Your task to perform on an android device: Go to Reddit.com Image 0: 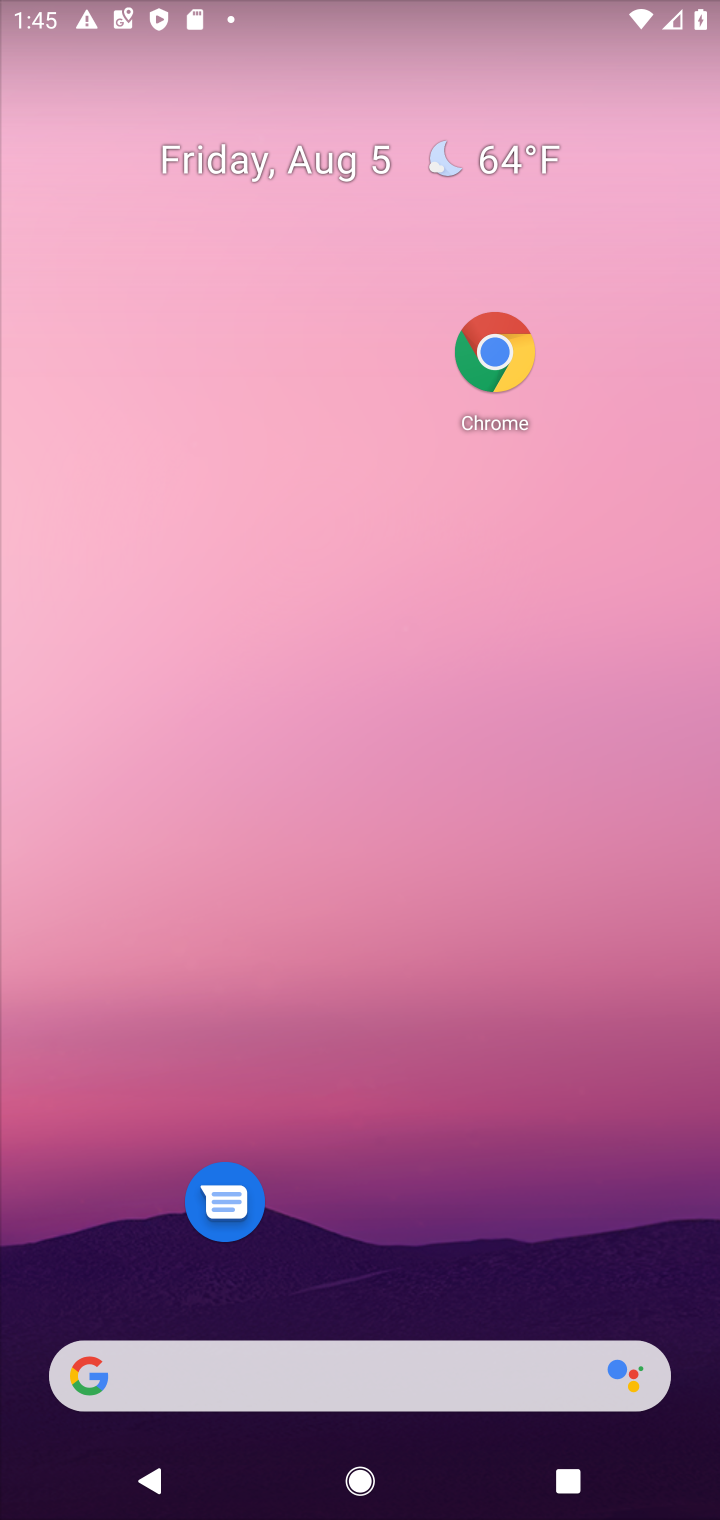
Step 0: drag from (511, 816) to (486, 69)
Your task to perform on an android device: Go to Reddit.com Image 1: 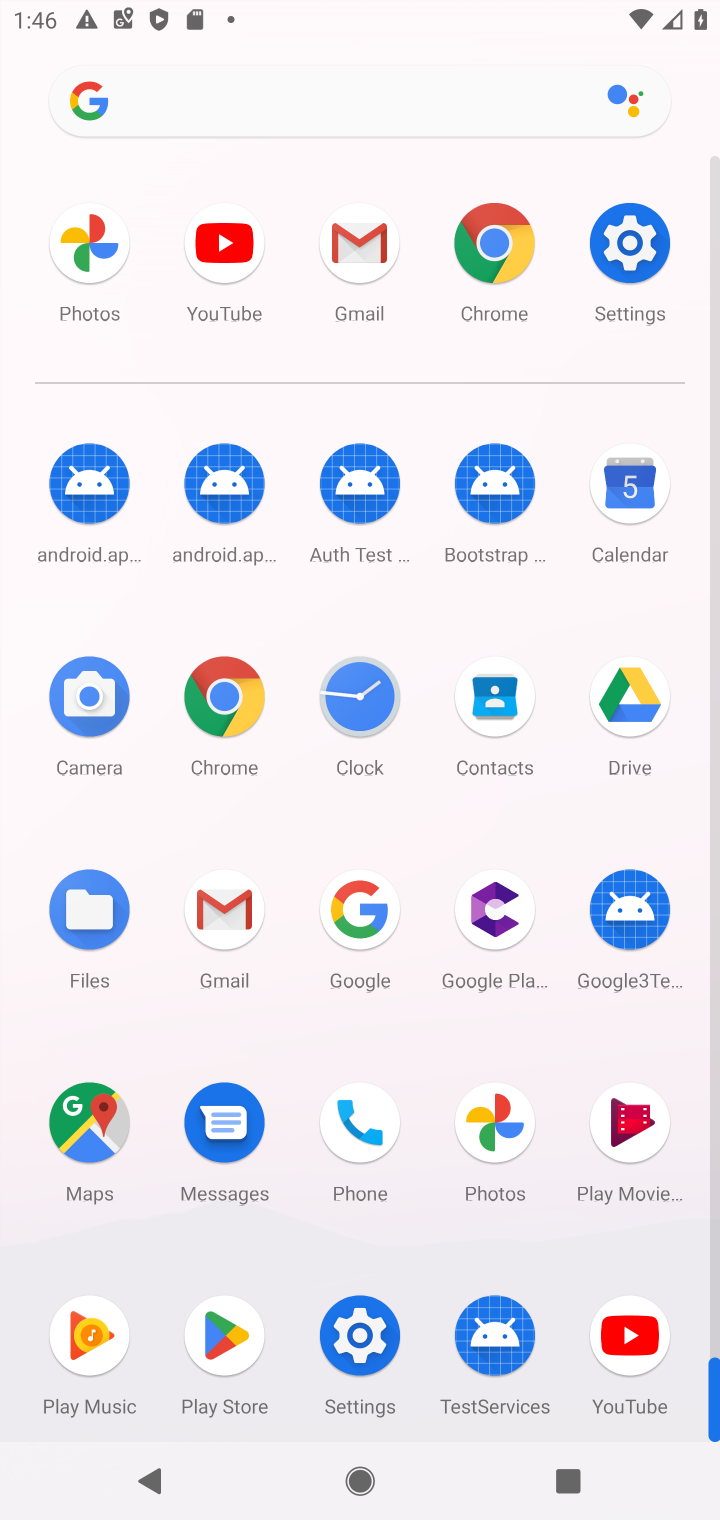
Step 1: click (235, 700)
Your task to perform on an android device: Go to Reddit.com Image 2: 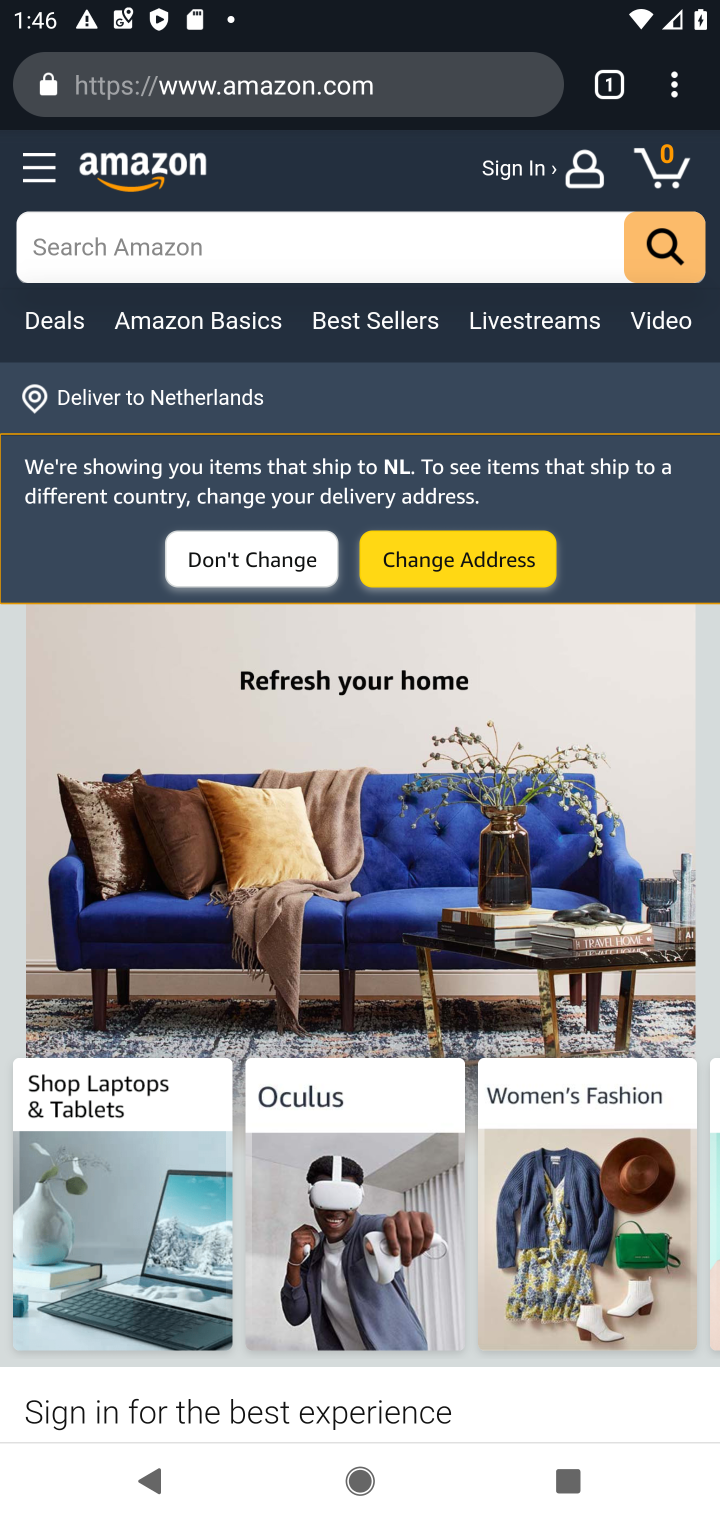
Step 2: click (359, 80)
Your task to perform on an android device: Go to Reddit.com Image 3: 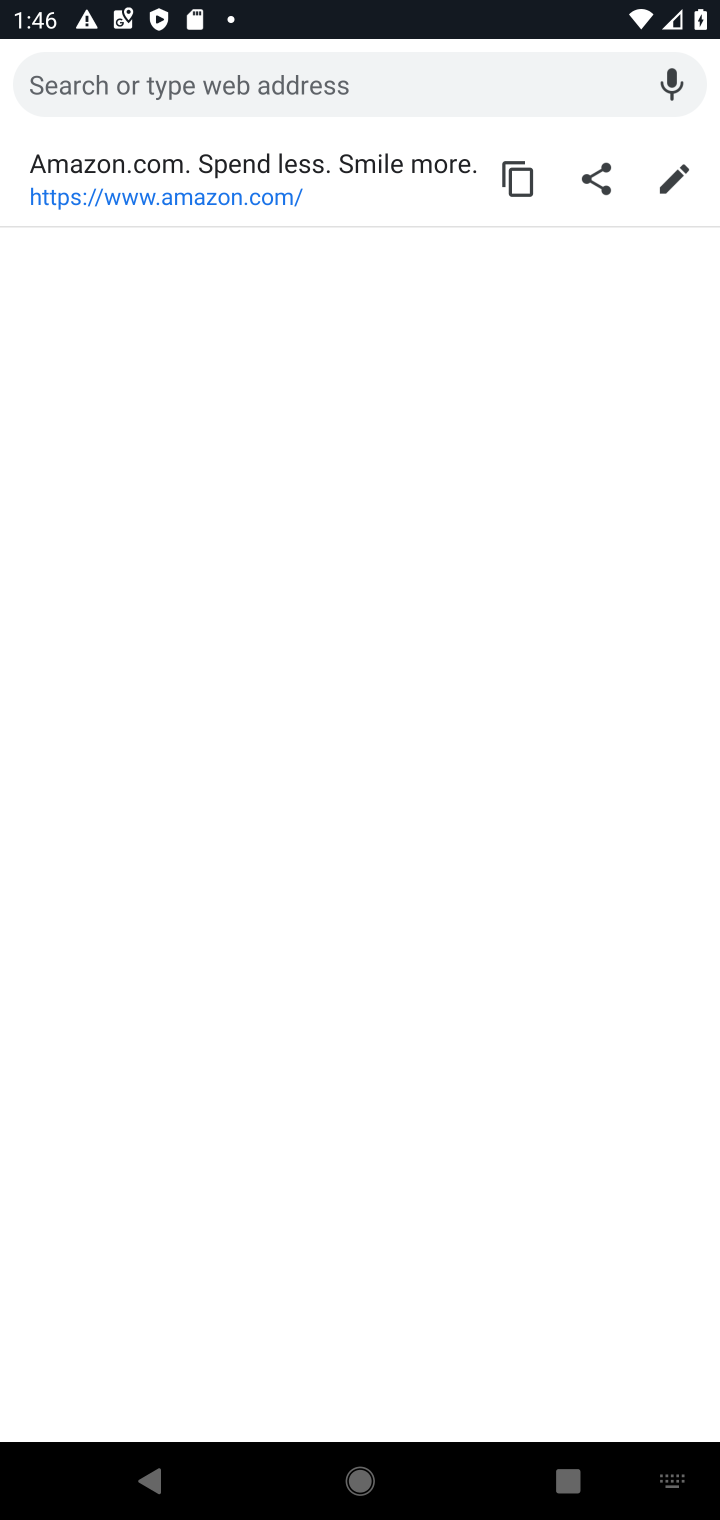
Step 3: type "reddit.com"
Your task to perform on an android device: Go to Reddit.com Image 4: 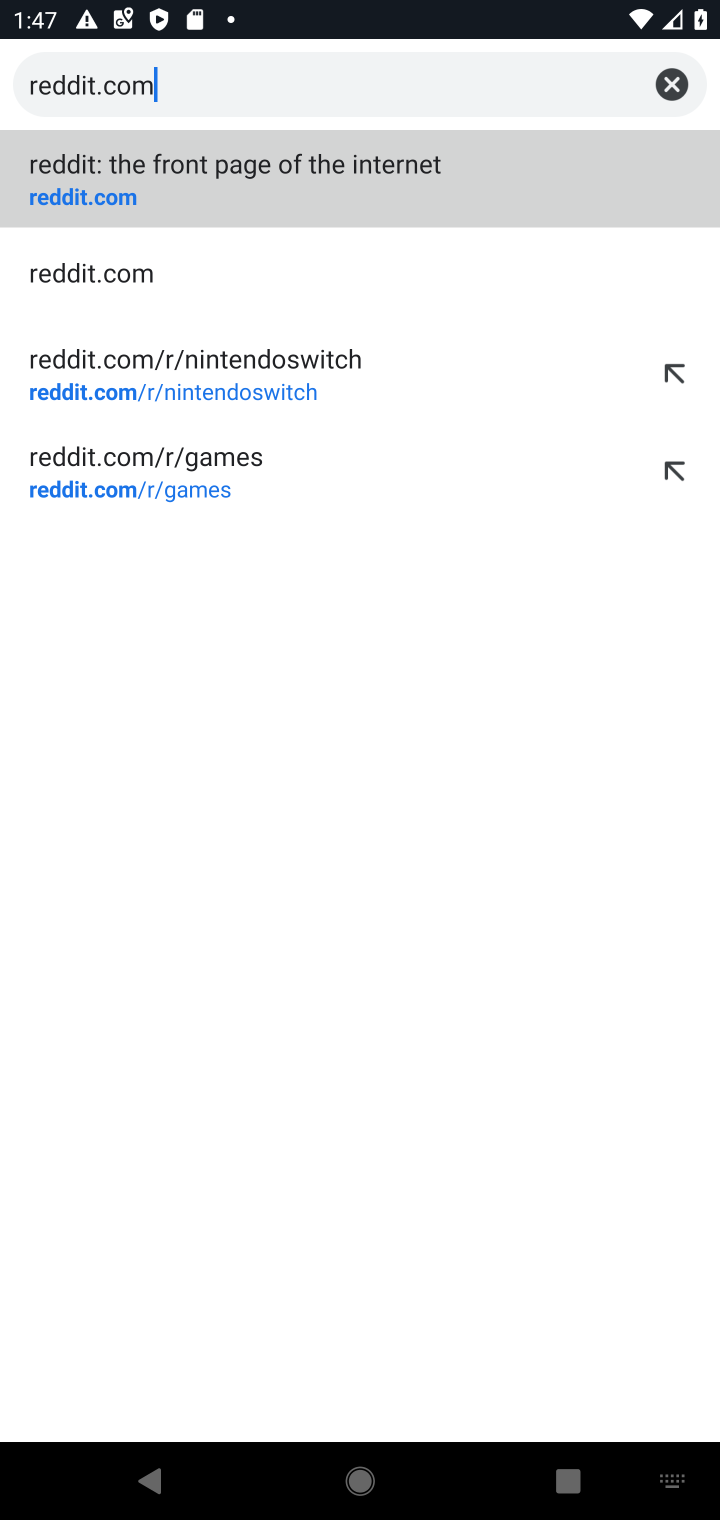
Step 4: click (97, 191)
Your task to perform on an android device: Go to Reddit.com Image 5: 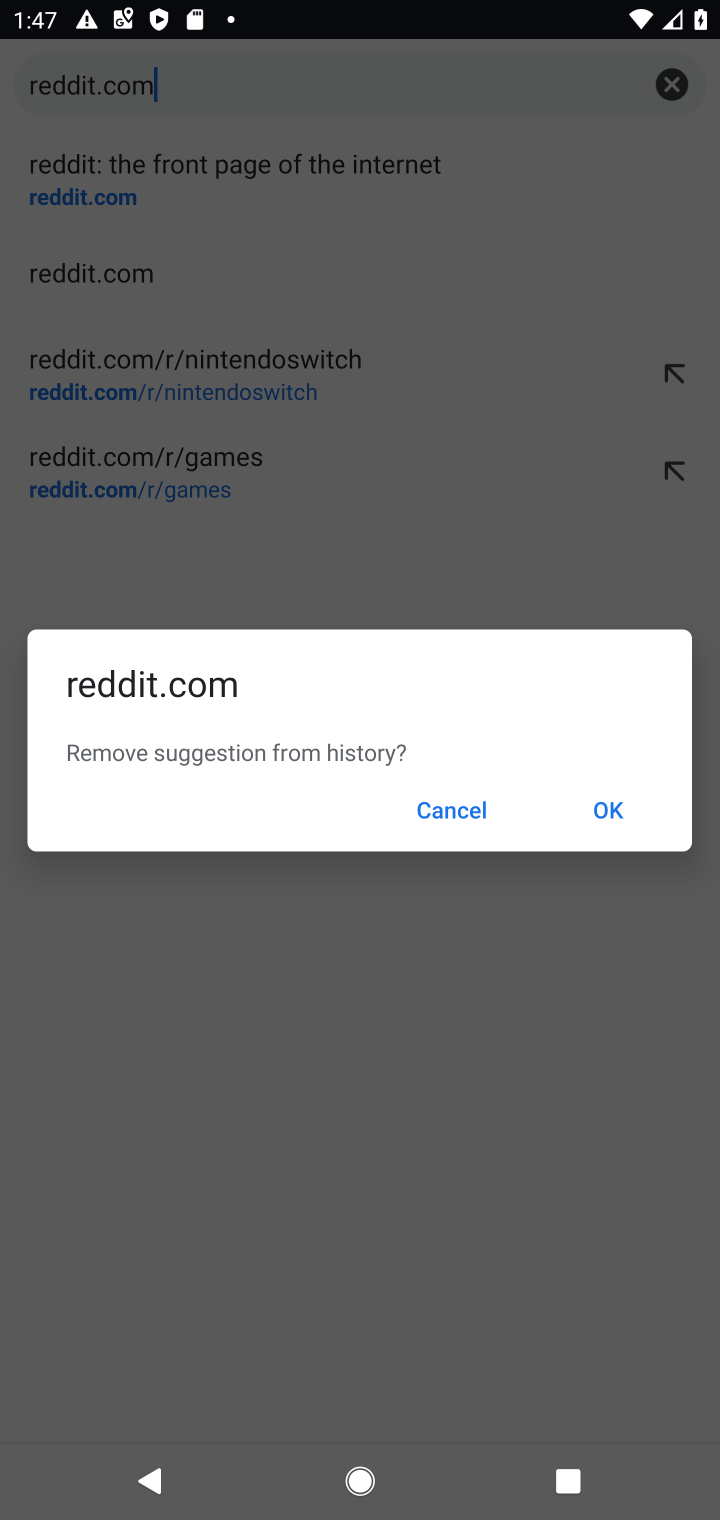
Step 5: click (472, 815)
Your task to perform on an android device: Go to Reddit.com Image 6: 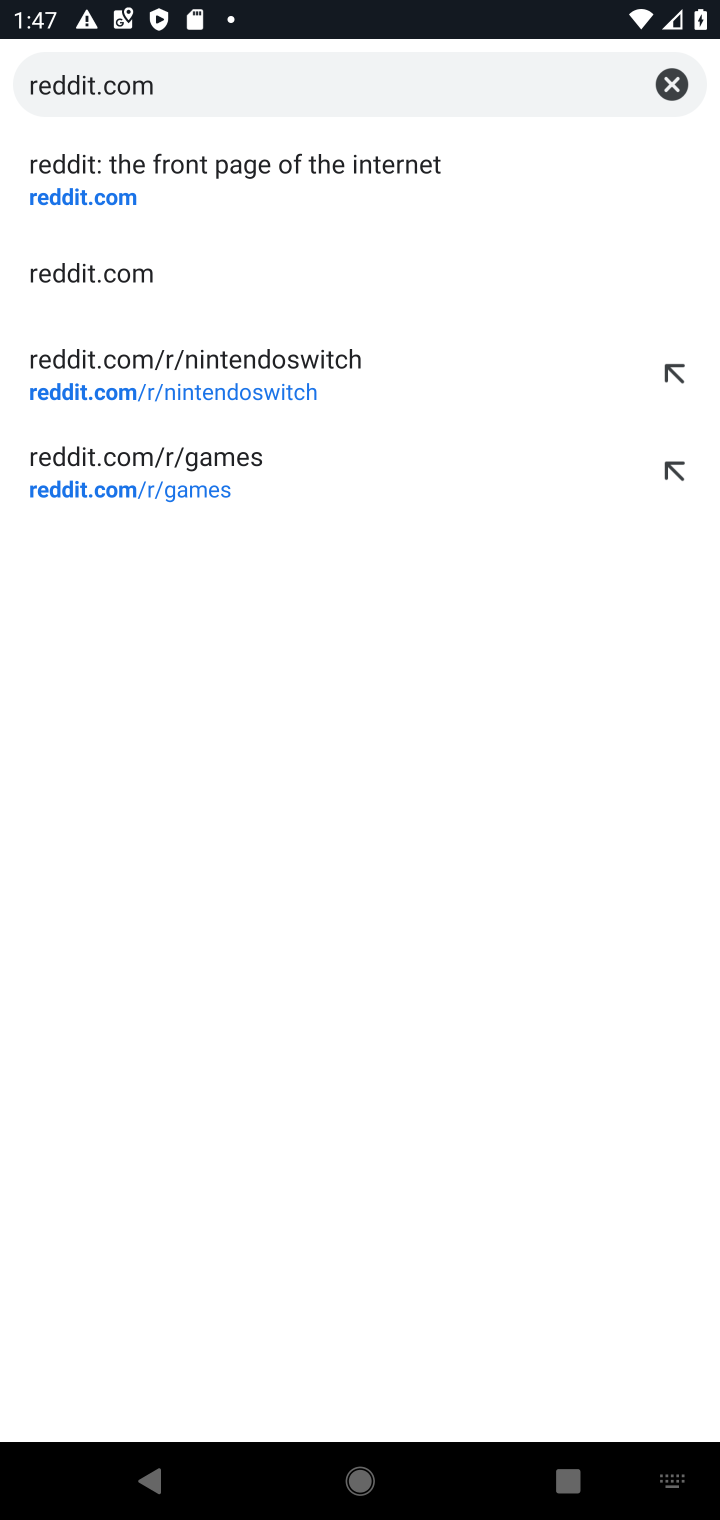
Step 6: click (118, 204)
Your task to perform on an android device: Go to Reddit.com Image 7: 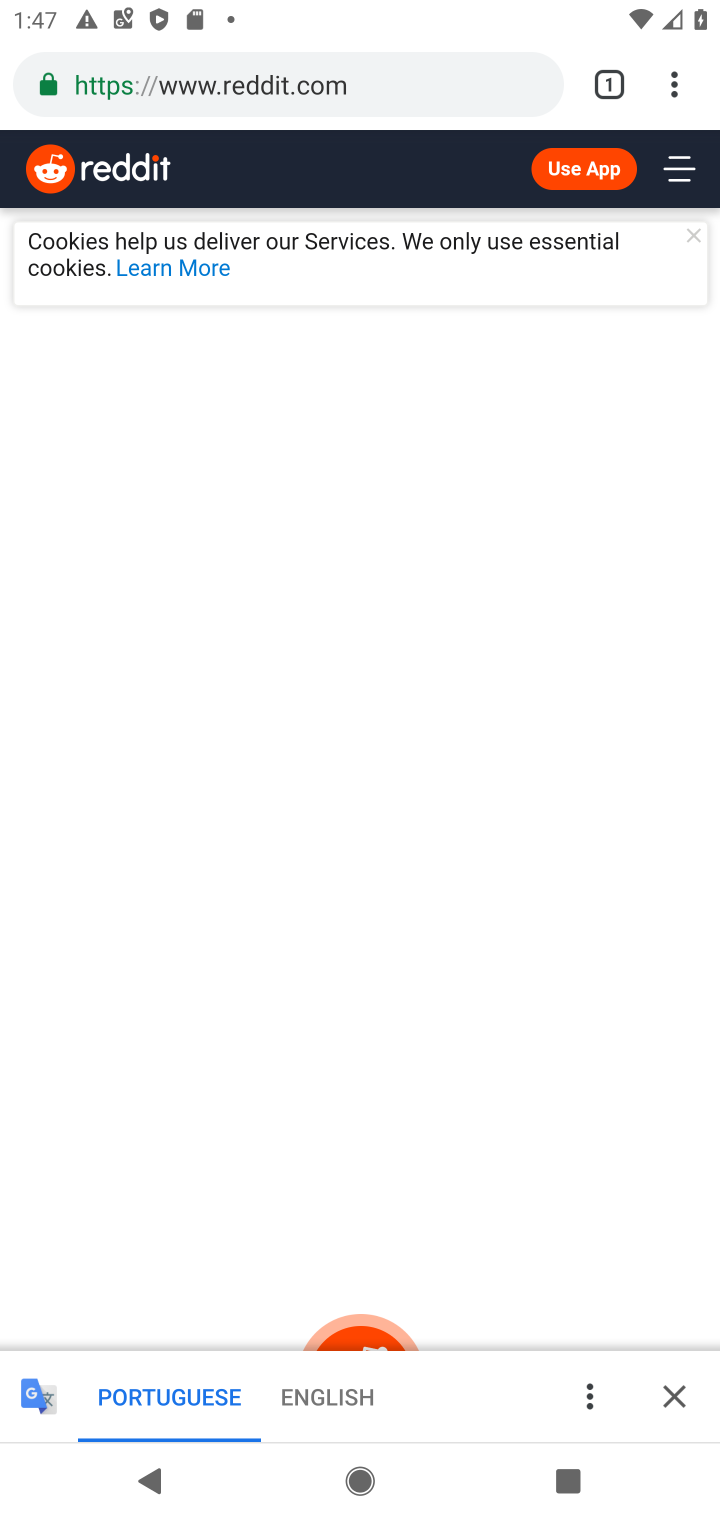
Step 7: task complete